Your task to perform on an android device: empty trash in the gmail app Image 0: 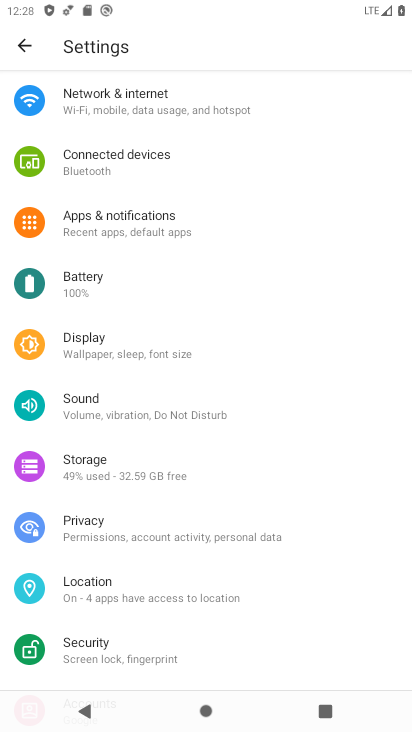
Step 0: press home button
Your task to perform on an android device: empty trash in the gmail app Image 1: 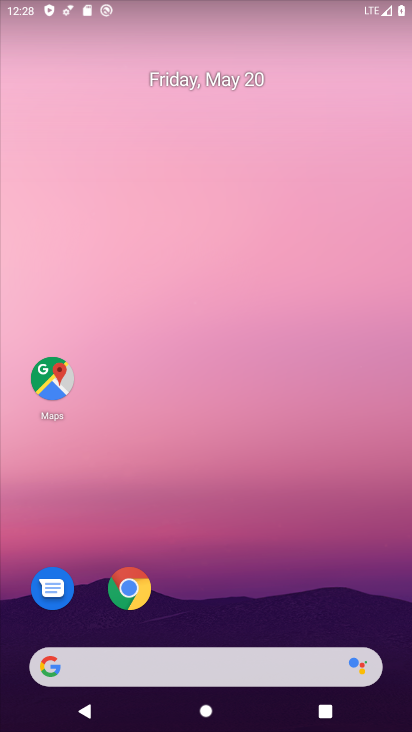
Step 1: drag from (383, 626) to (320, 145)
Your task to perform on an android device: empty trash in the gmail app Image 2: 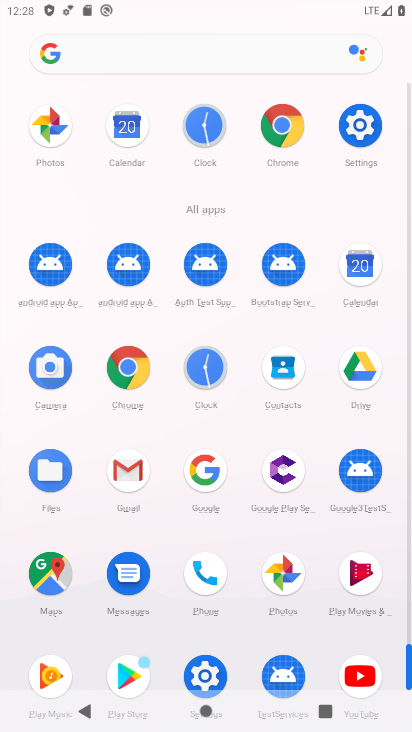
Step 2: click (124, 470)
Your task to perform on an android device: empty trash in the gmail app Image 3: 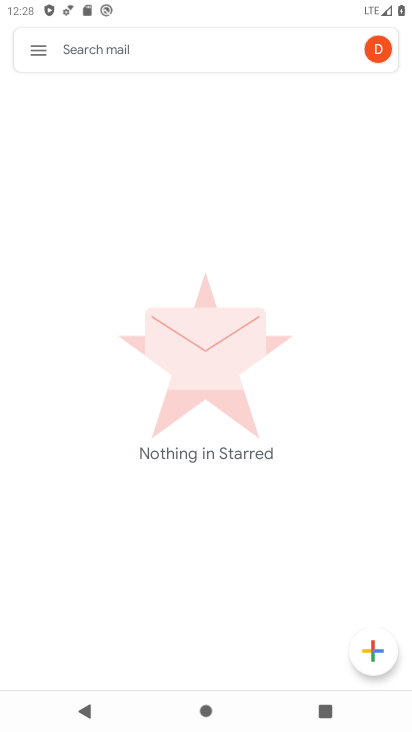
Step 3: click (30, 47)
Your task to perform on an android device: empty trash in the gmail app Image 4: 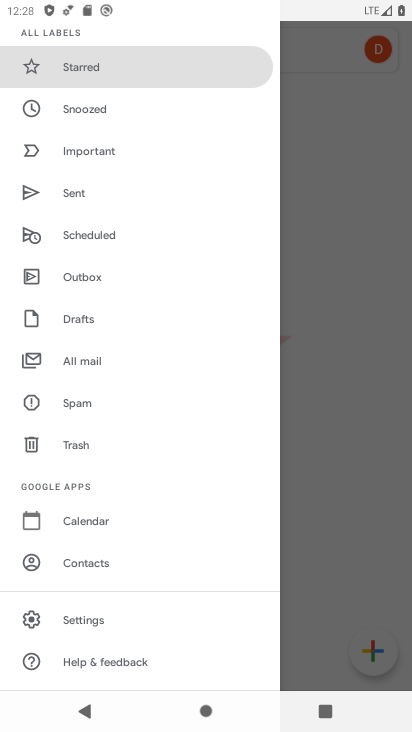
Step 4: click (67, 438)
Your task to perform on an android device: empty trash in the gmail app Image 5: 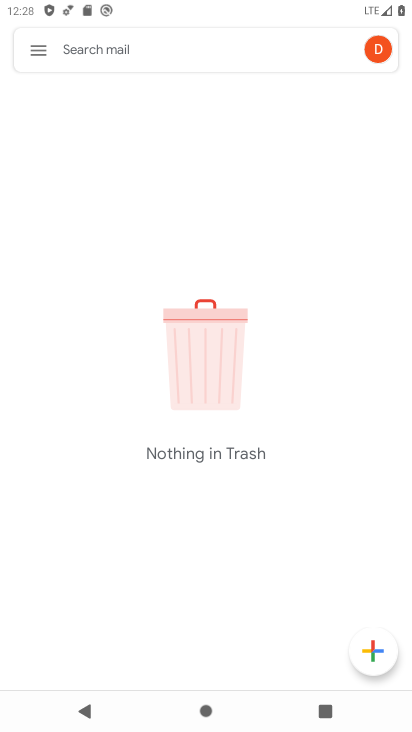
Step 5: task complete